Your task to perform on an android device: Open calendar and show me the second week of next month Image 0: 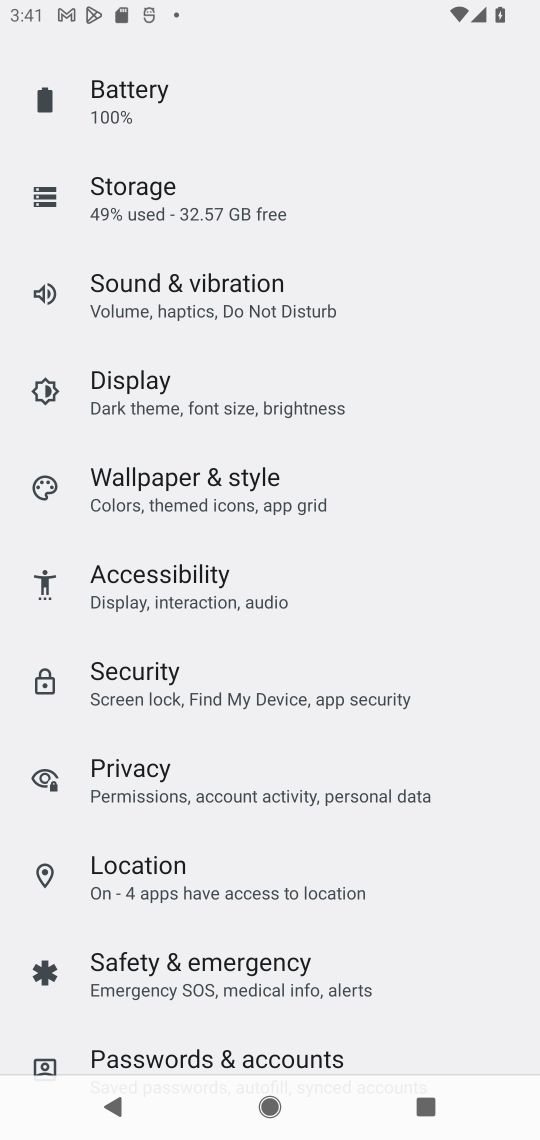
Step 0: press home button
Your task to perform on an android device: Open calendar and show me the second week of next month Image 1: 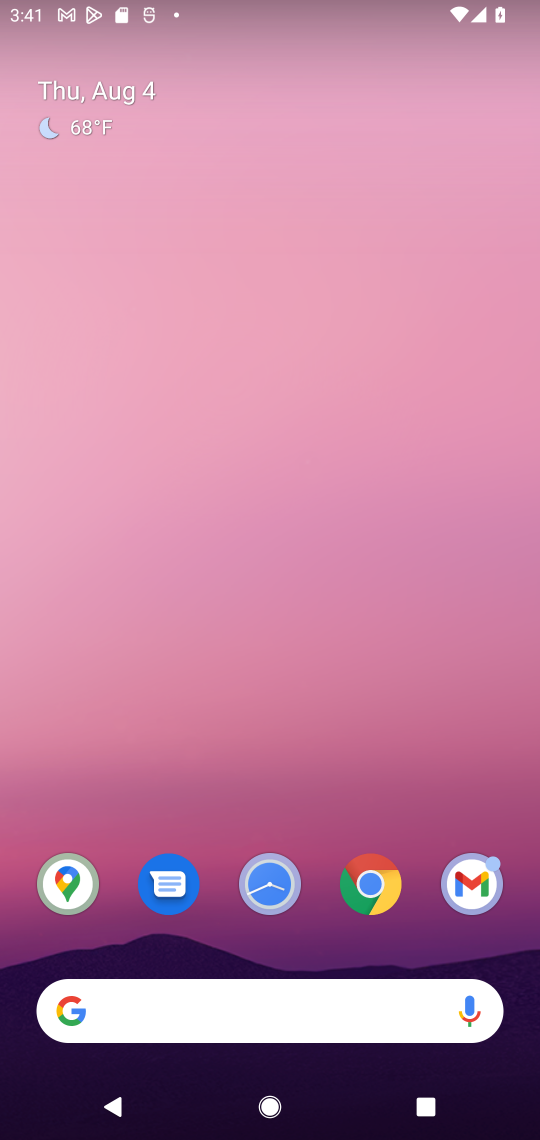
Step 1: drag from (310, 944) to (319, 357)
Your task to perform on an android device: Open calendar and show me the second week of next month Image 2: 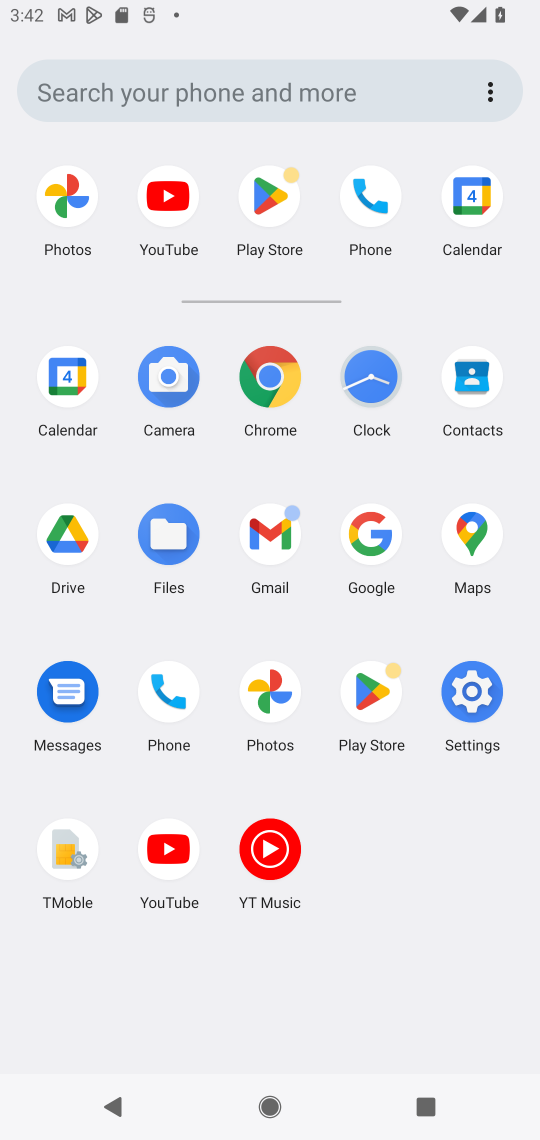
Step 2: click (447, 239)
Your task to perform on an android device: Open calendar and show me the second week of next month Image 3: 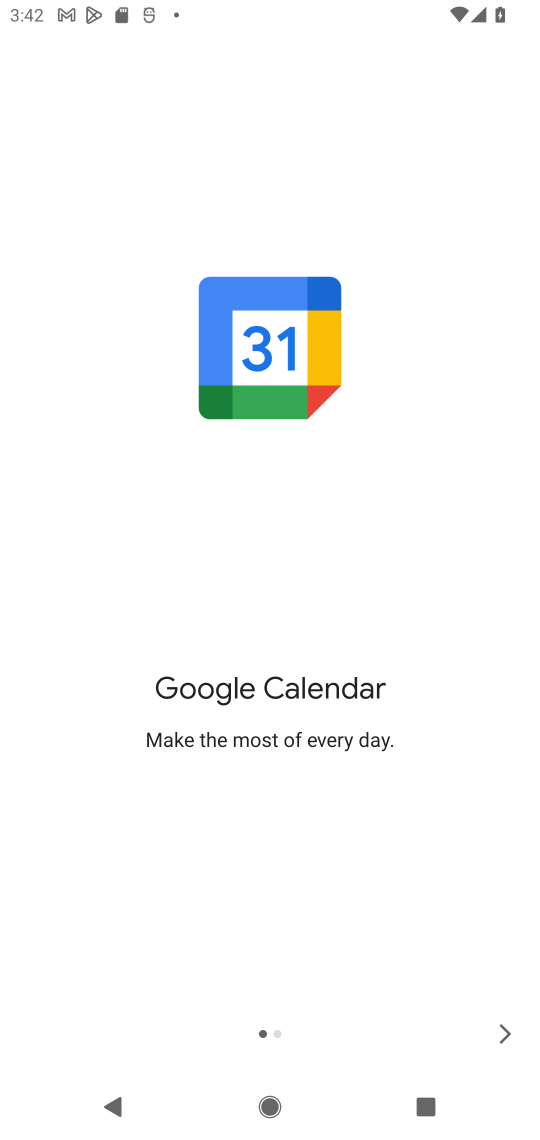
Step 3: click (505, 1027)
Your task to perform on an android device: Open calendar and show me the second week of next month Image 4: 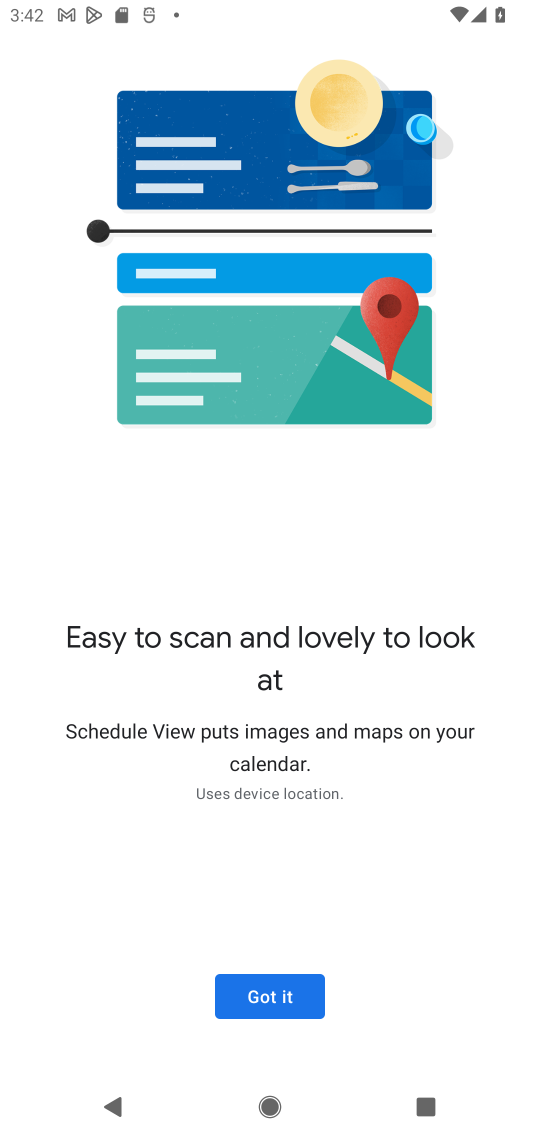
Step 4: click (505, 1027)
Your task to perform on an android device: Open calendar and show me the second week of next month Image 5: 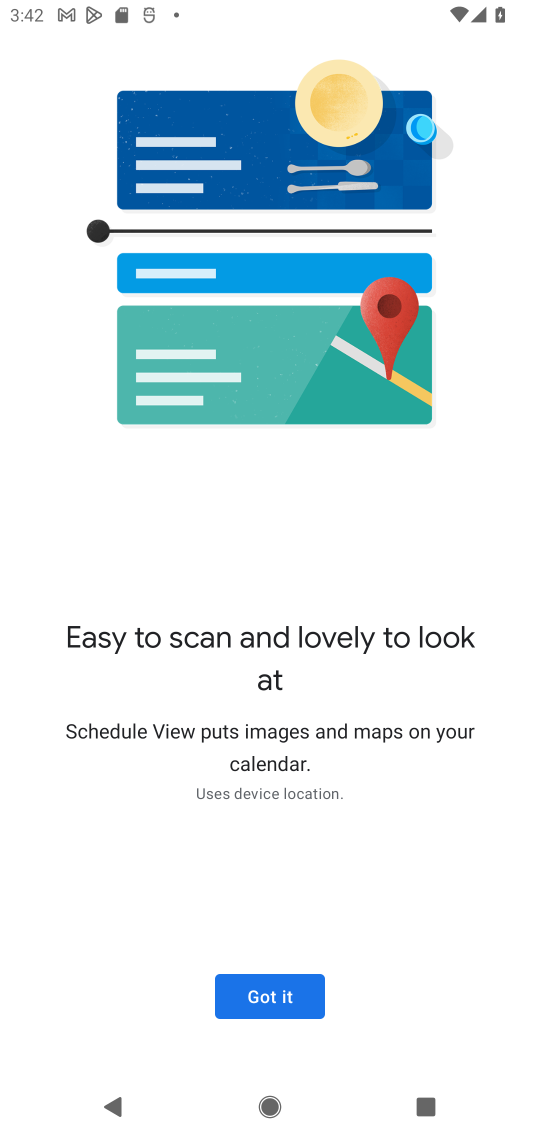
Step 5: click (232, 993)
Your task to perform on an android device: Open calendar and show me the second week of next month Image 6: 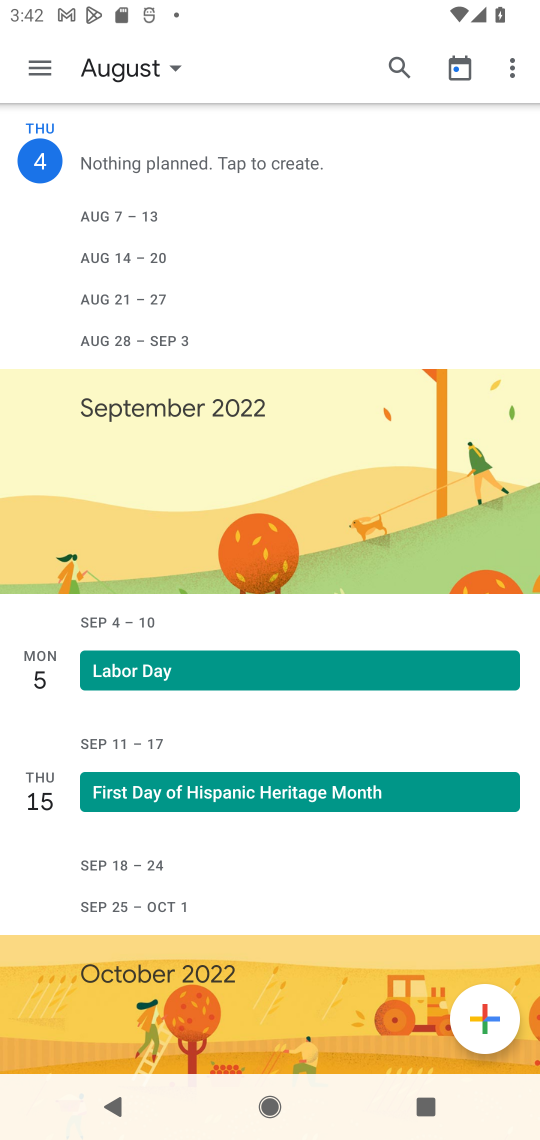
Step 6: task complete